Your task to perform on an android device: turn on the 24-hour format for clock Image 0: 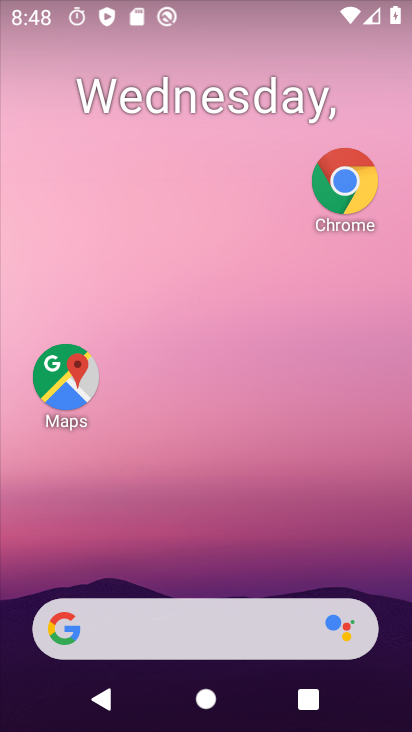
Step 0: drag from (242, 657) to (392, 121)
Your task to perform on an android device: turn on the 24-hour format for clock Image 1: 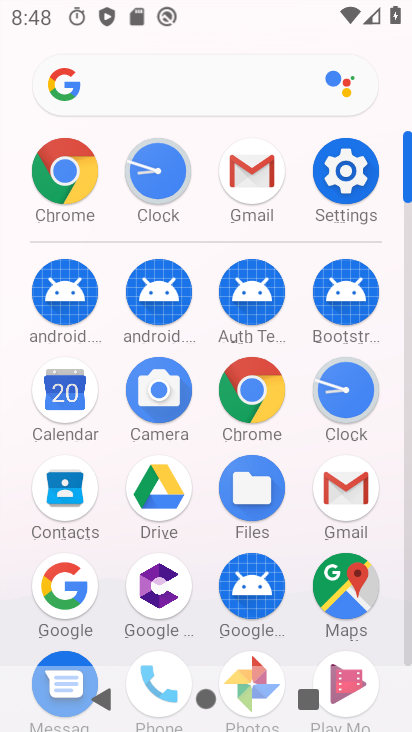
Step 1: click (340, 188)
Your task to perform on an android device: turn on the 24-hour format for clock Image 2: 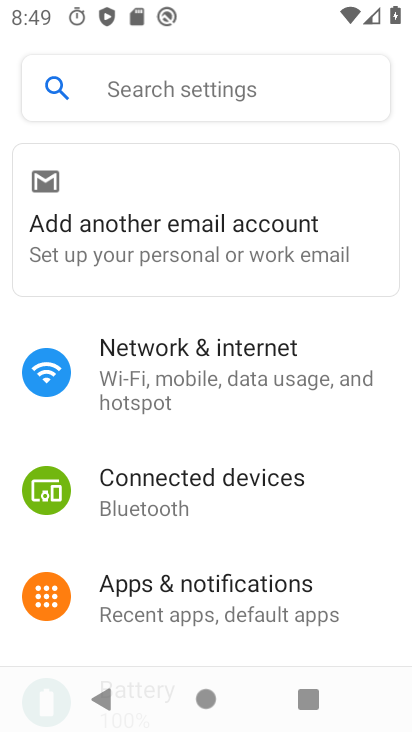
Step 2: press home button
Your task to perform on an android device: turn on the 24-hour format for clock Image 3: 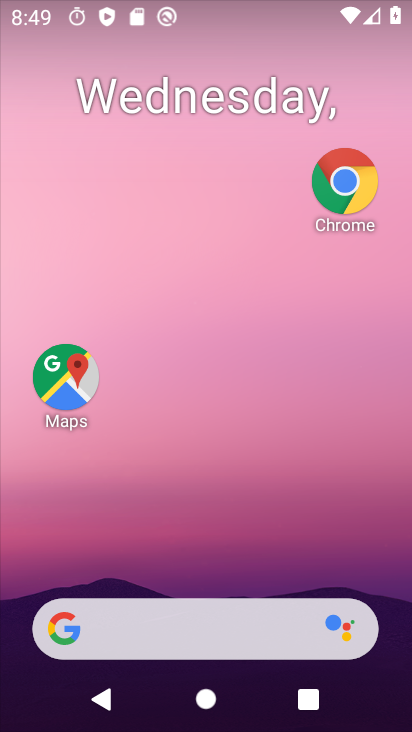
Step 3: drag from (260, 672) to (269, 252)
Your task to perform on an android device: turn on the 24-hour format for clock Image 4: 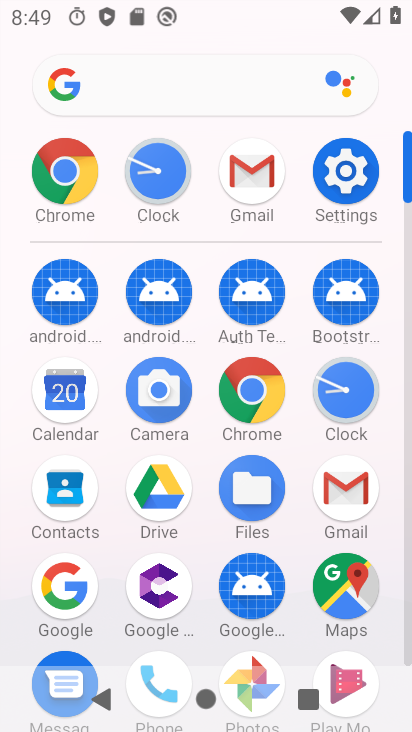
Step 4: click (321, 398)
Your task to perform on an android device: turn on the 24-hour format for clock Image 5: 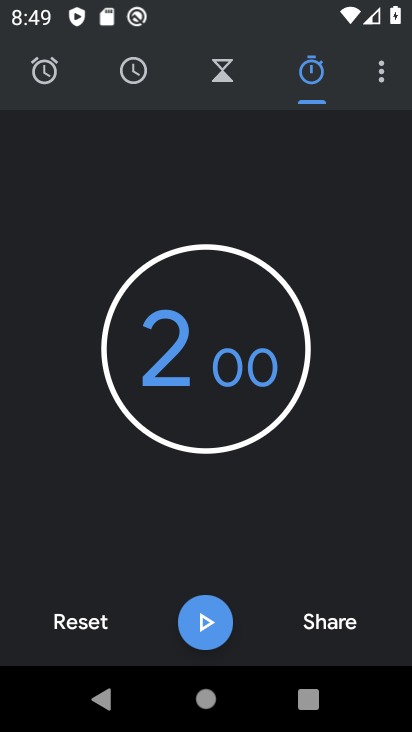
Step 5: click (54, 82)
Your task to perform on an android device: turn on the 24-hour format for clock Image 6: 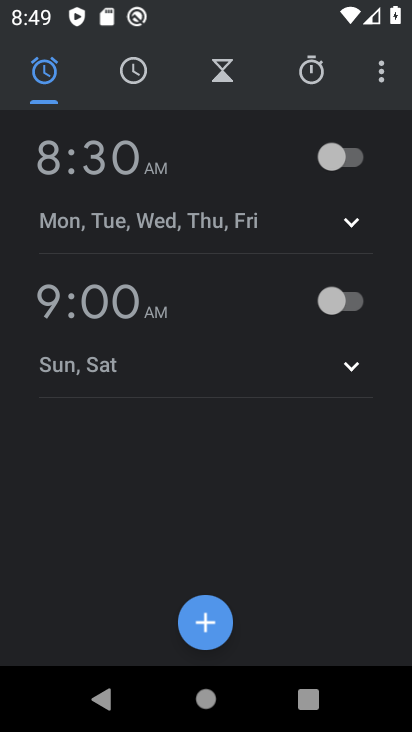
Step 6: click (382, 83)
Your task to perform on an android device: turn on the 24-hour format for clock Image 7: 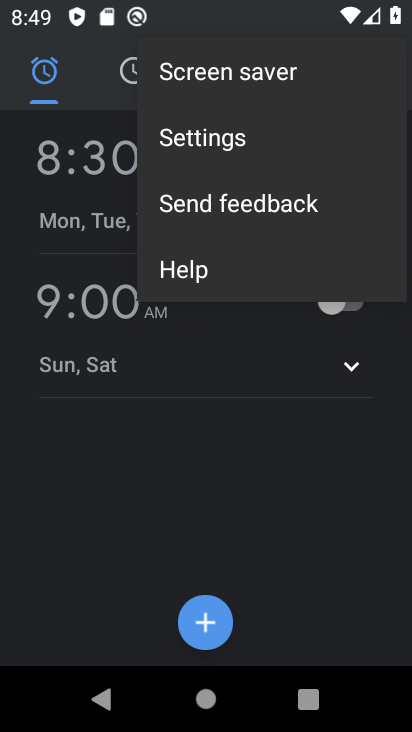
Step 7: click (224, 155)
Your task to perform on an android device: turn on the 24-hour format for clock Image 8: 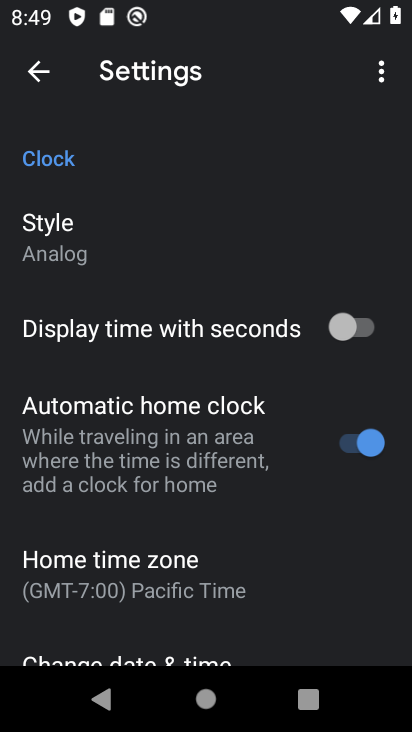
Step 8: drag from (148, 548) to (239, 364)
Your task to perform on an android device: turn on the 24-hour format for clock Image 9: 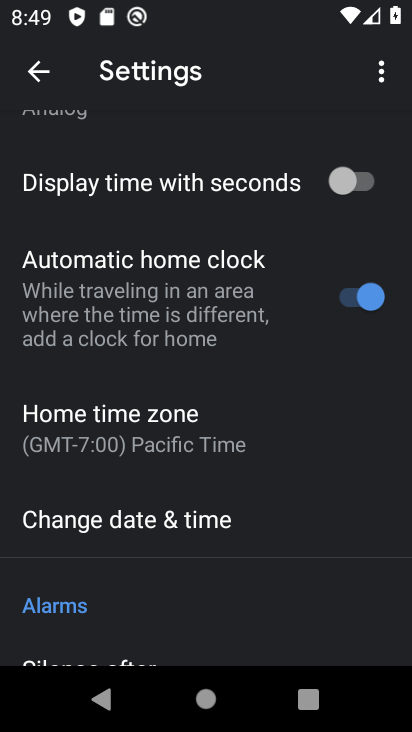
Step 9: click (110, 510)
Your task to perform on an android device: turn on the 24-hour format for clock Image 10: 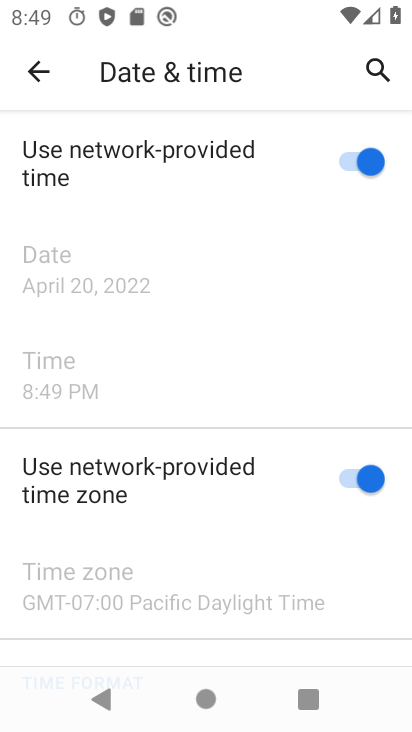
Step 10: drag from (178, 529) to (287, 159)
Your task to perform on an android device: turn on the 24-hour format for clock Image 11: 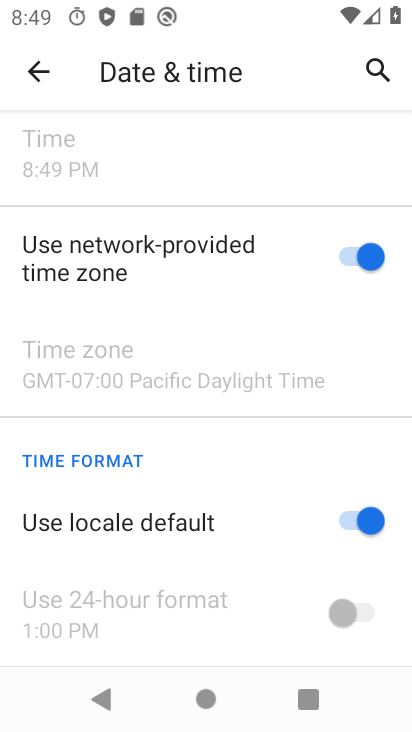
Step 11: click (333, 527)
Your task to perform on an android device: turn on the 24-hour format for clock Image 12: 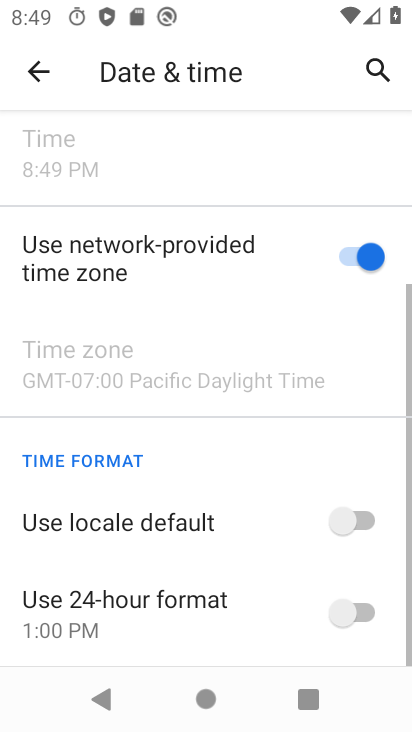
Step 12: click (357, 601)
Your task to perform on an android device: turn on the 24-hour format for clock Image 13: 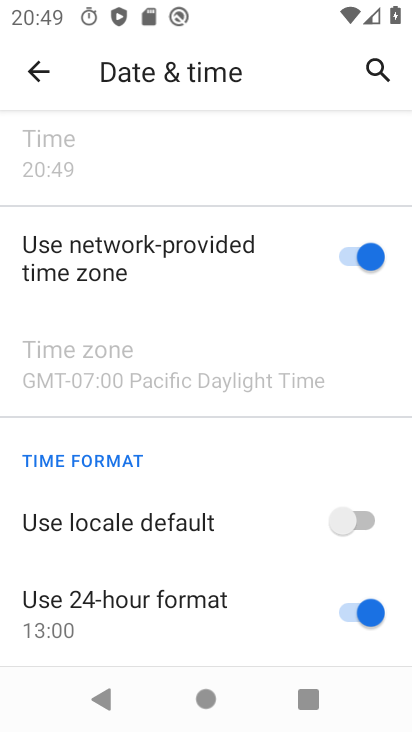
Step 13: task complete